Your task to perform on an android device: Search for flights from Sydney to Buenos aires Image 0: 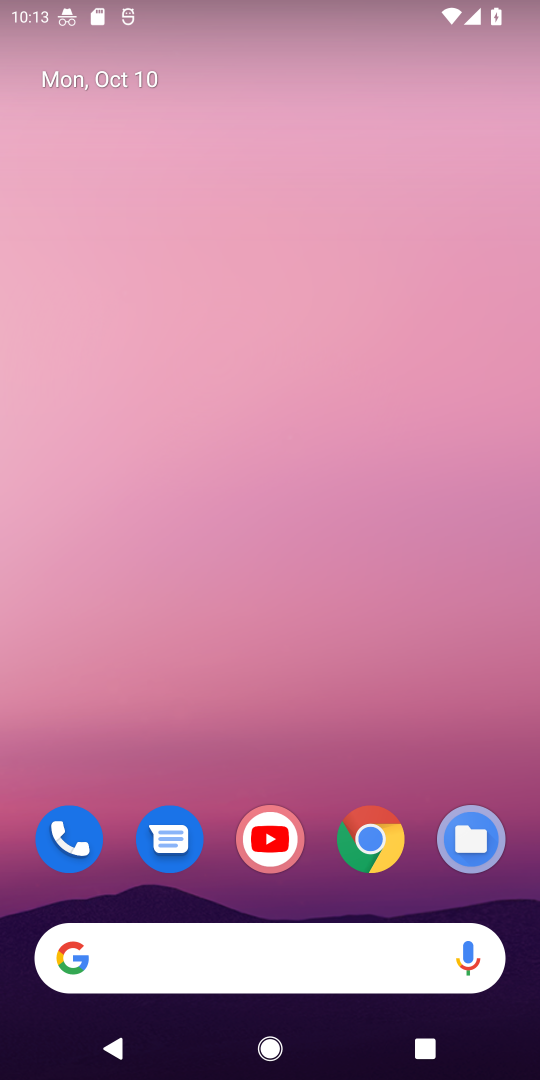
Step 0: drag from (320, 816) to (342, 190)
Your task to perform on an android device: Search for flights from Sydney to Buenos aires Image 1: 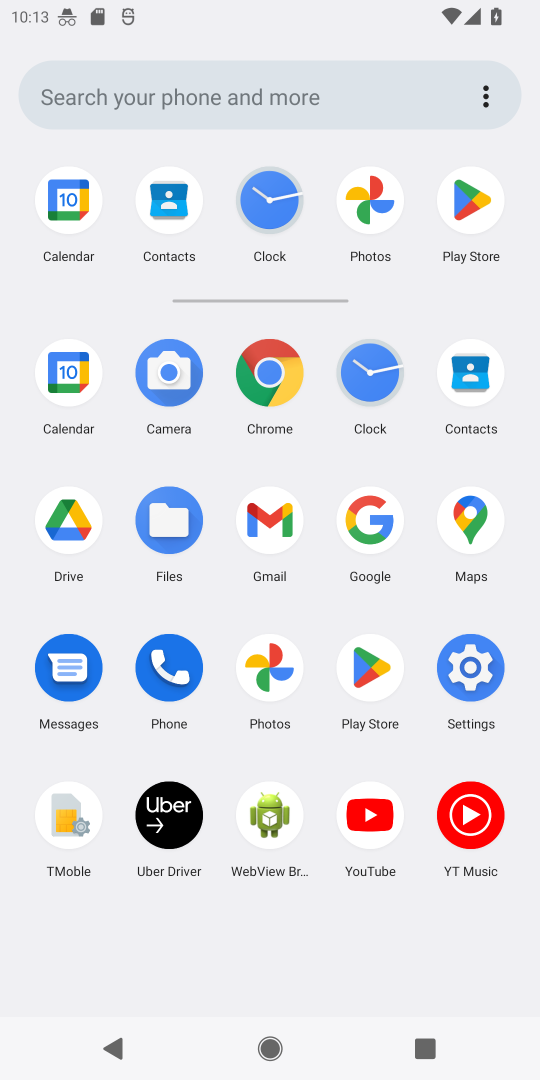
Step 1: click (266, 371)
Your task to perform on an android device: Search for flights from Sydney to Buenos aires Image 2: 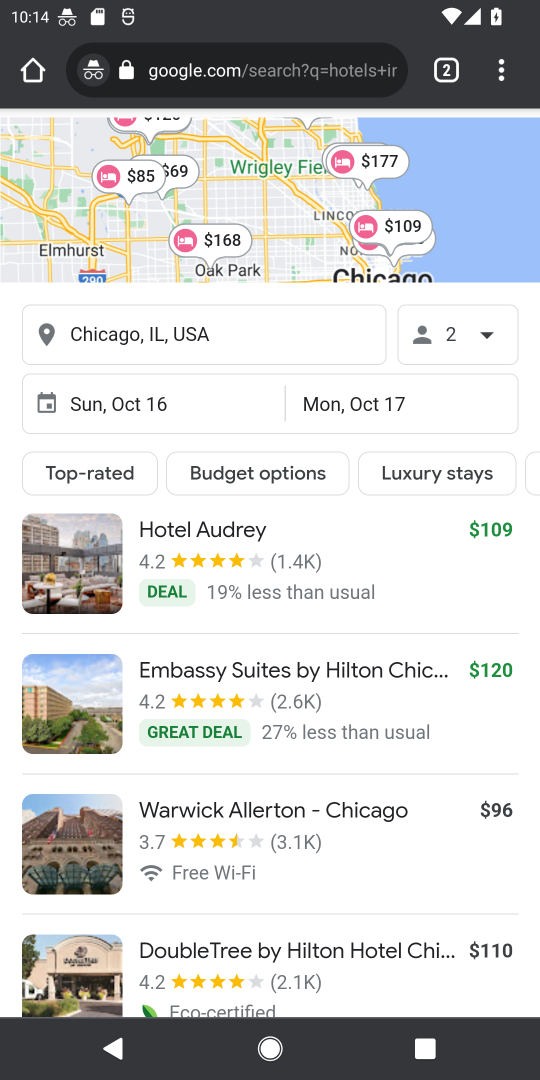
Step 2: click (238, 86)
Your task to perform on an android device: Search for flights from Sydney to Buenos aires Image 3: 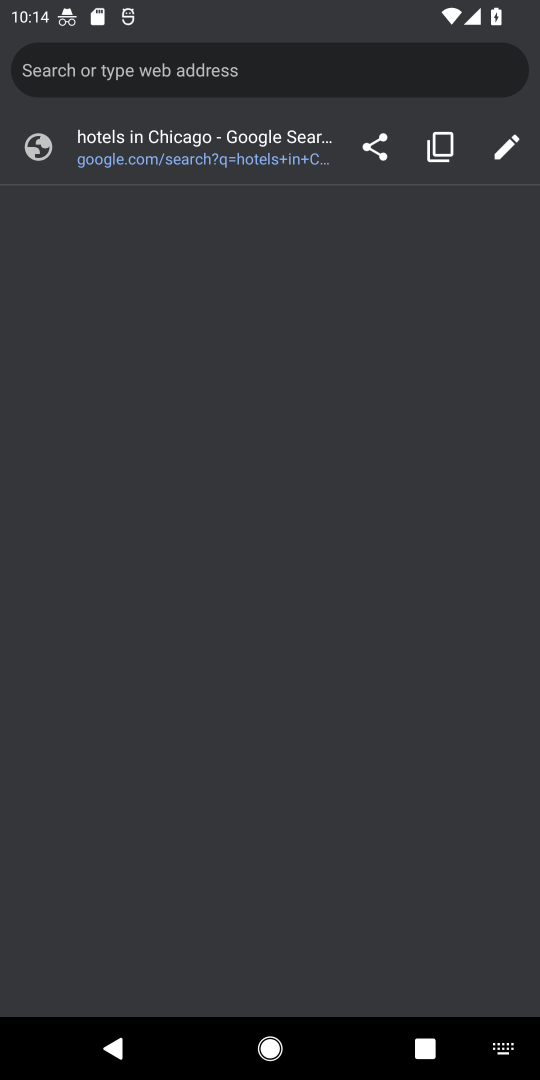
Step 3: type "flights from Sydney to Buenos aires"
Your task to perform on an android device: Search for flights from Sydney to Buenos aires Image 4: 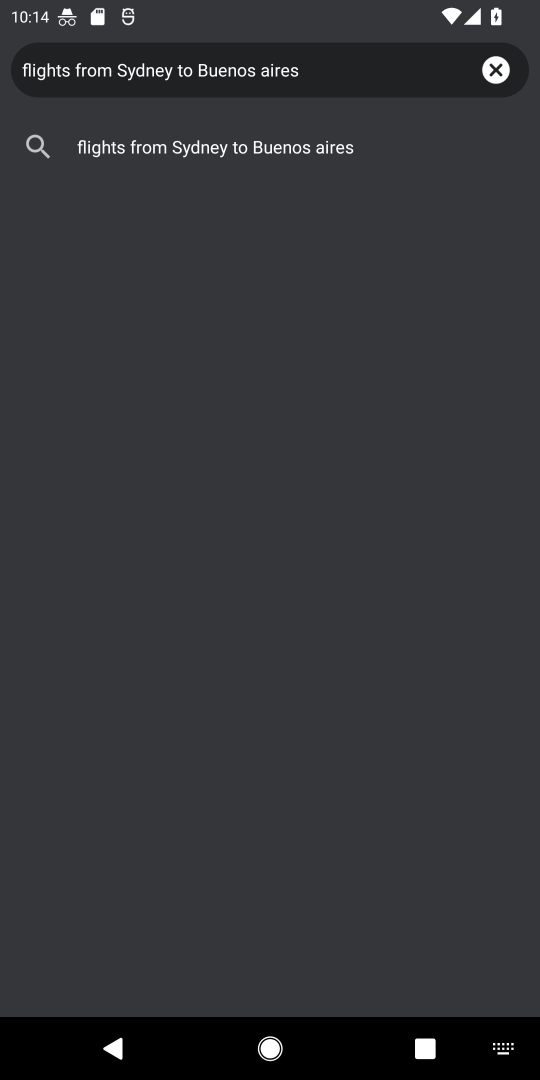
Step 4: press enter
Your task to perform on an android device: Search for flights from Sydney to Buenos aires Image 5: 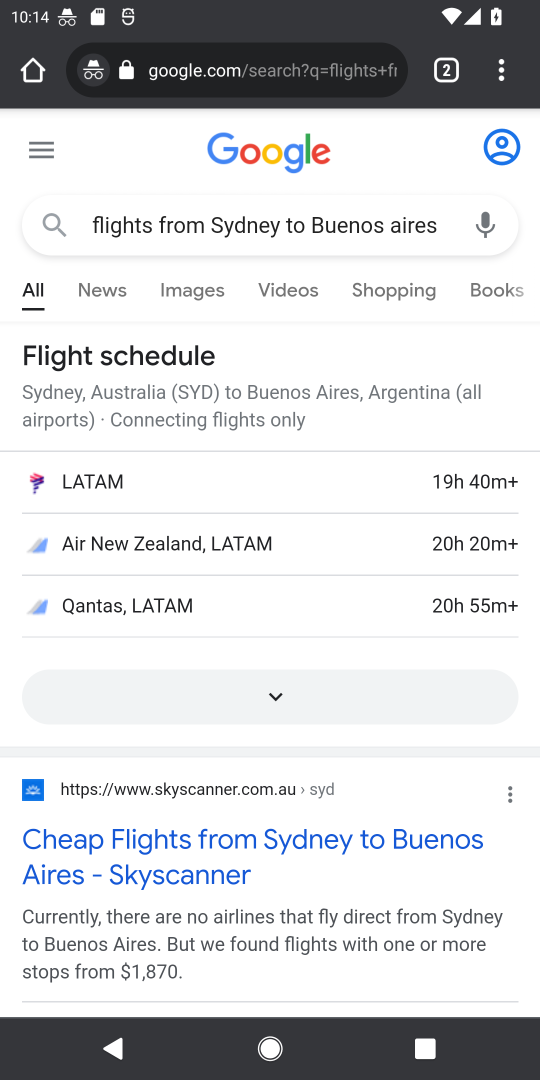
Step 5: task complete